Your task to perform on an android device: toggle notification dots Image 0: 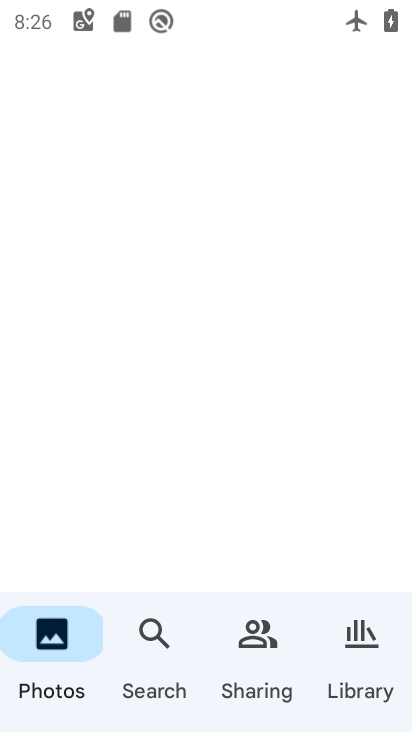
Step 0: drag from (226, 423) to (276, 12)
Your task to perform on an android device: toggle notification dots Image 1: 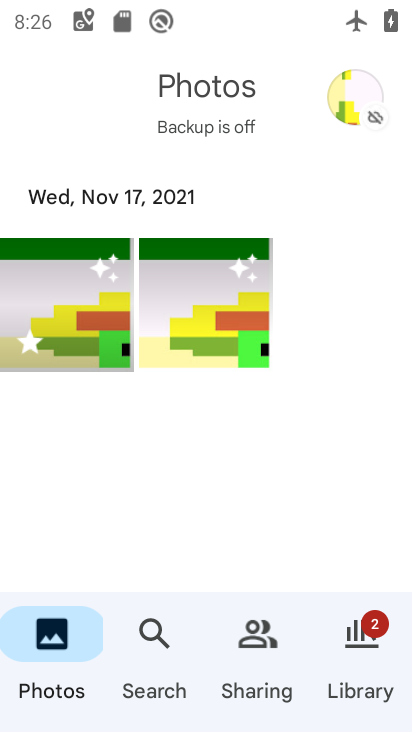
Step 1: press home button
Your task to perform on an android device: toggle notification dots Image 2: 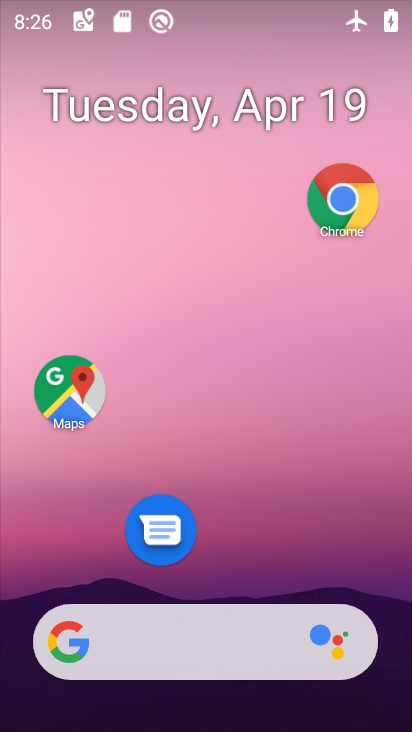
Step 2: drag from (224, 564) to (243, 10)
Your task to perform on an android device: toggle notification dots Image 3: 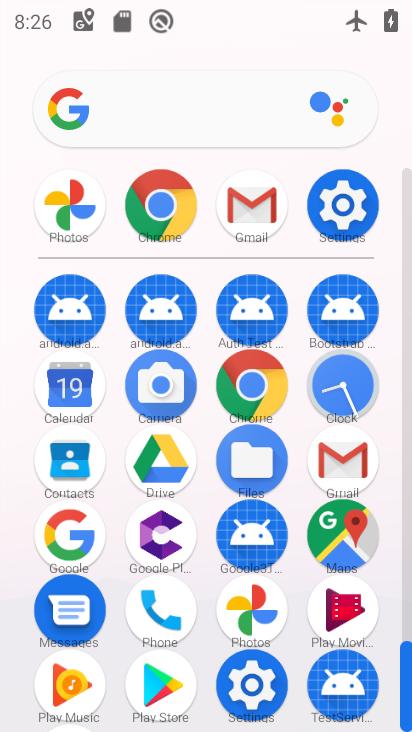
Step 3: click (253, 680)
Your task to perform on an android device: toggle notification dots Image 4: 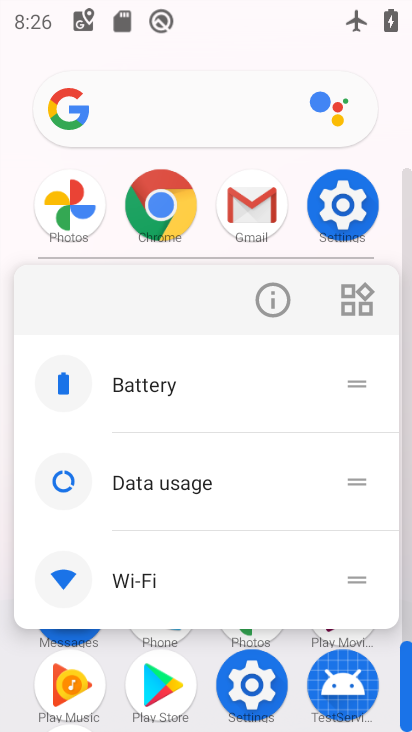
Step 4: click (276, 304)
Your task to perform on an android device: toggle notification dots Image 5: 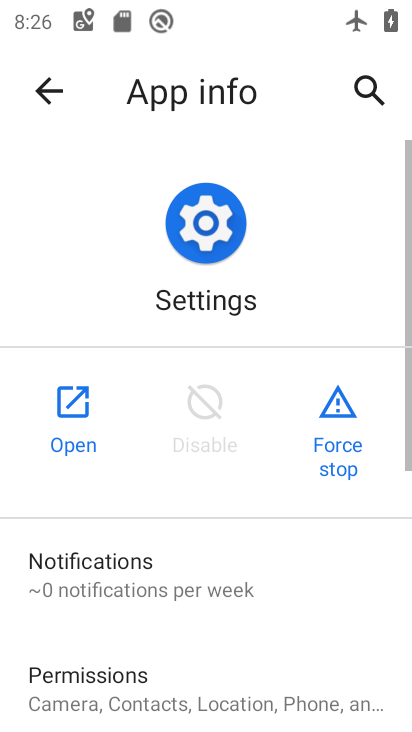
Step 5: click (63, 417)
Your task to perform on an android device: toggle notification dots Image 6: 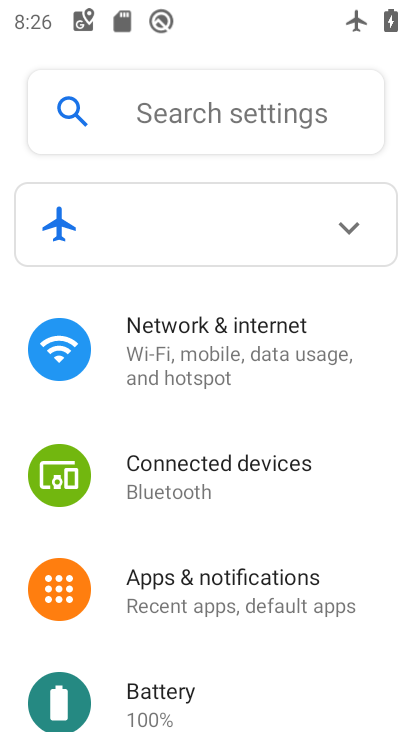
Step 6: drag from (195, 678) to (274, 10)
Your task to perform on an android device: toggle notification dots Image 7: 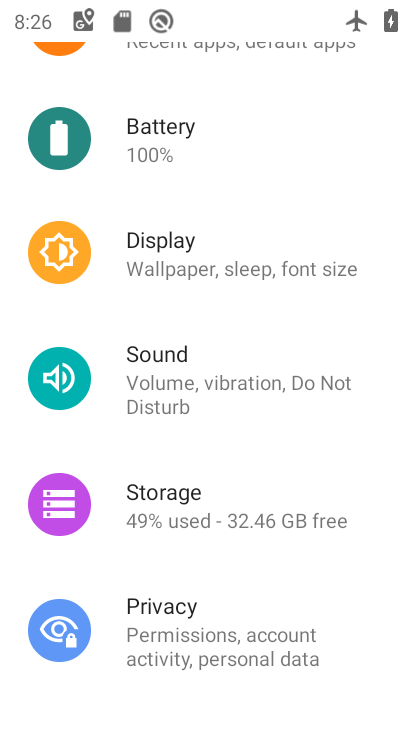
Step 7: drag from (232, 561) to (232, 139)
Your task to perform on an android device: toggle notification dots Image 8: 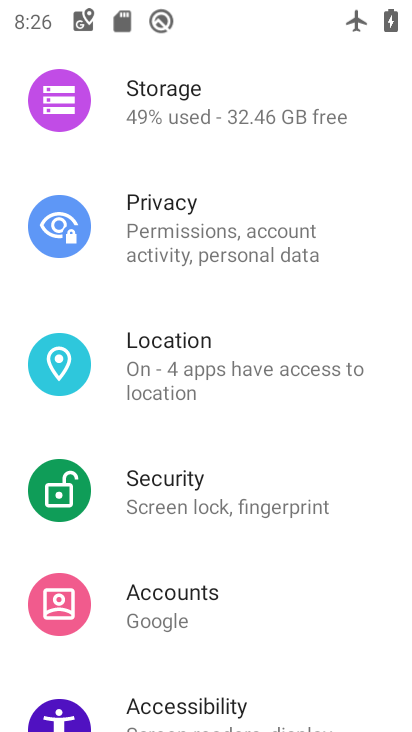
Step 8: drag from (202, 633) to (207, 120)
Your task to perform on an android device: toggle notification dots Image 9: 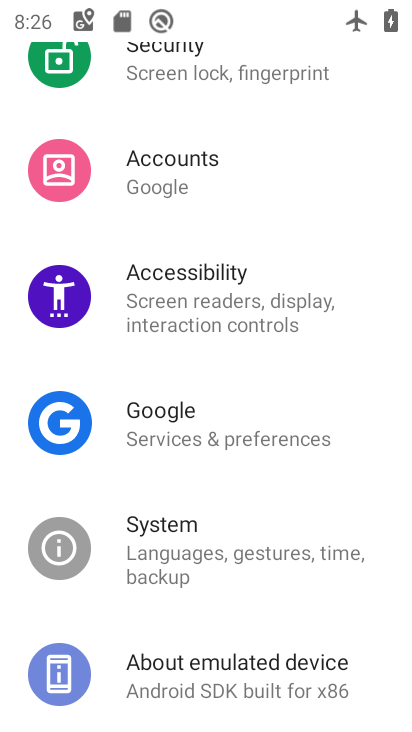
Step 9: drag from (248, 378) to (318, 674)
Your task to perform on an android device: toggle notification dots Image 10: 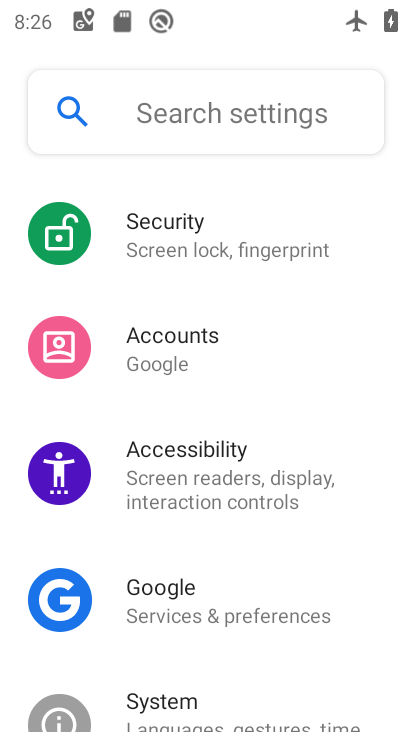
Step 10: drag from (211, 217) to (386, 646)
Your task to perform on an android device: toggle notification dots Image 11: 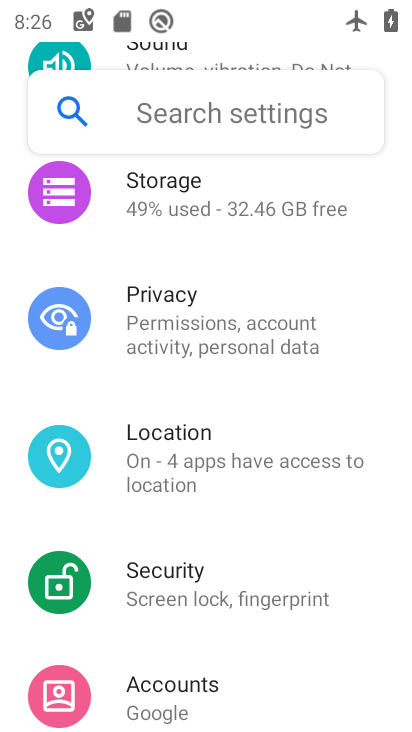
Step 11: drag from (263, 205) to (286, 627)
Your task to perform on an android device: toggle notification dots Image 12: 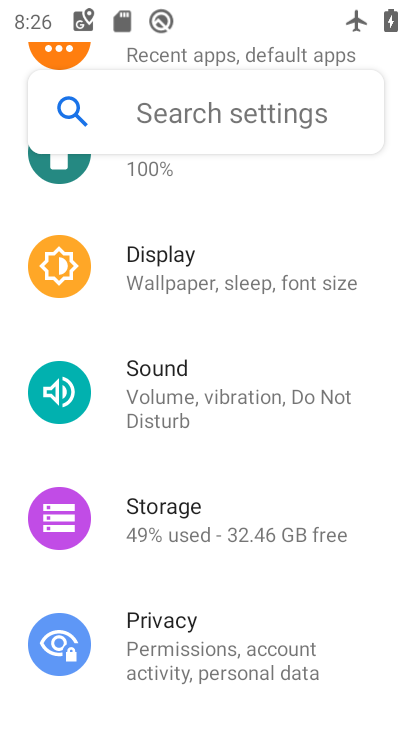
Step 12: drag from (166, 284) to (244, 676)
Your task to perform on an android device: toggle notification dots Image 13: 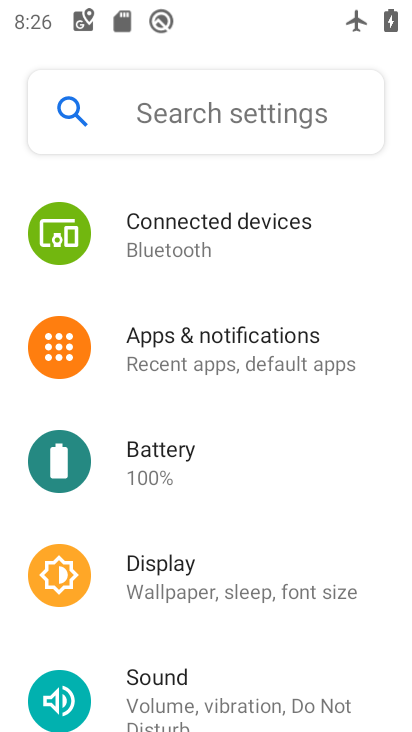
Step 13: click (177, 348)
Your task to perform on an android device: toggle notification dots Image 14: 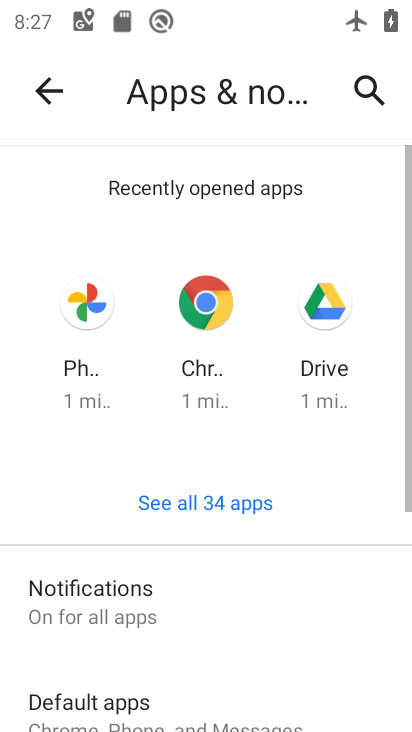
Step 14: drag from (202, 617) to (223, 230)
Your task to perform on an android device: toggle notification dots Image 15: 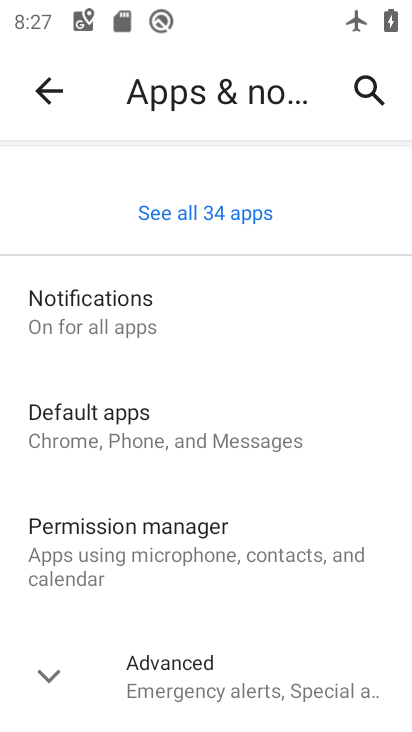
Step 15: click (142, 324)
Your task to perform on an android device: toggle notification dots Image 16: 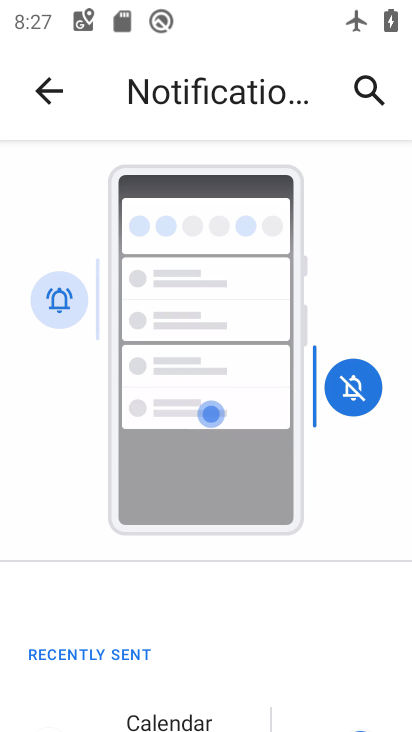
Step 16: drag from (276, 661) to (298, 190)
Your task to perform on an android device: toggle notification dots Image 17: 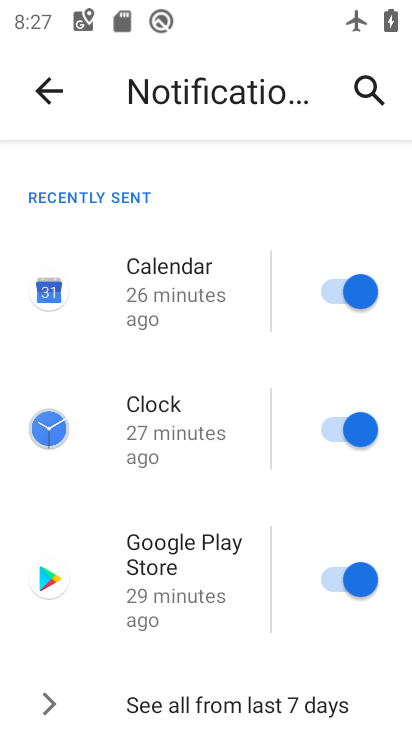
Step 17: drag from (240, 538) to (227, 177)
Your task to perform on an android device: toggle notification dots Image 18: 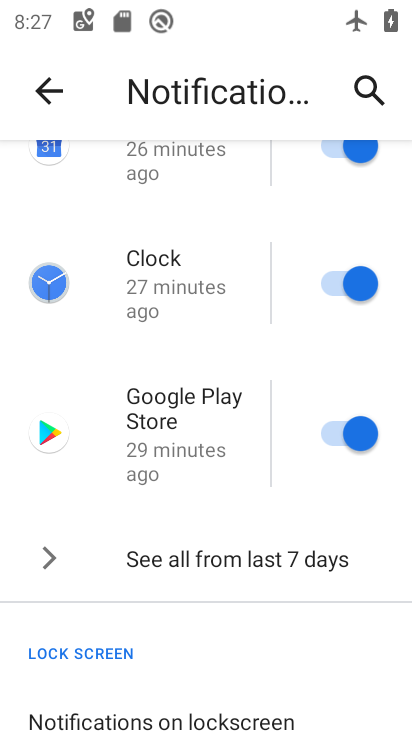
Step 18: drag from (197, 638) to (231, 226)
Your task to perform on an android device: toggle notification dots Image 19: 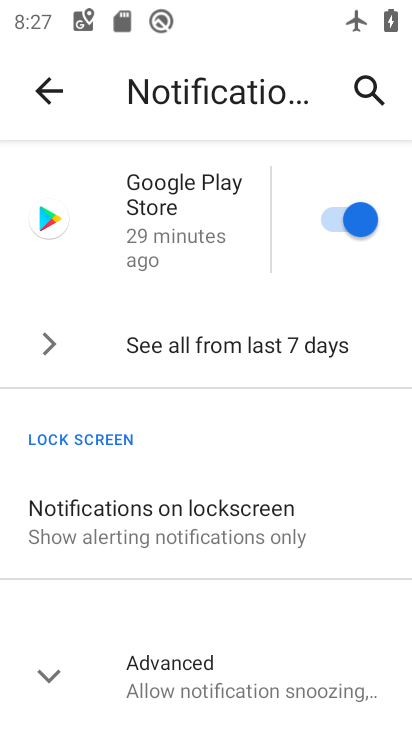
Step 19: click (228, 672)
Your task to perform on an android device: toggle notification dots Image 20: 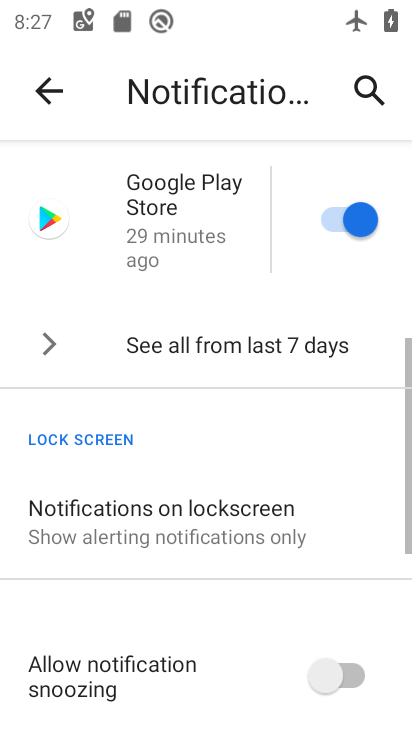
Step 20: drag from (226, 671) to (280, 63)
Your task to perform on an android device: toggle notification dots Image 21: 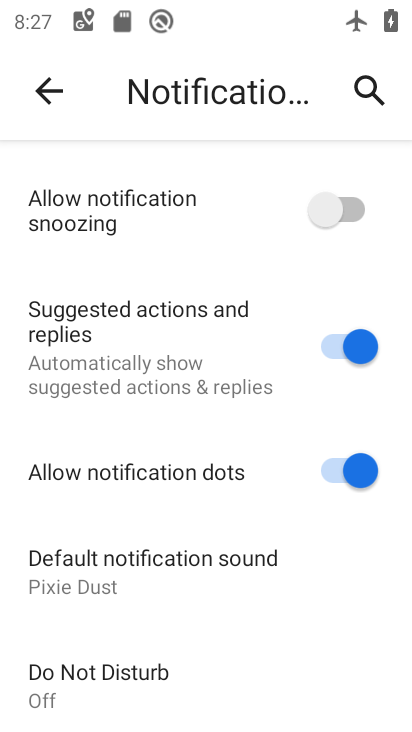
Step 21: click (342, 464)
Your task to perform on an android device: toggle notification dots Image 22: 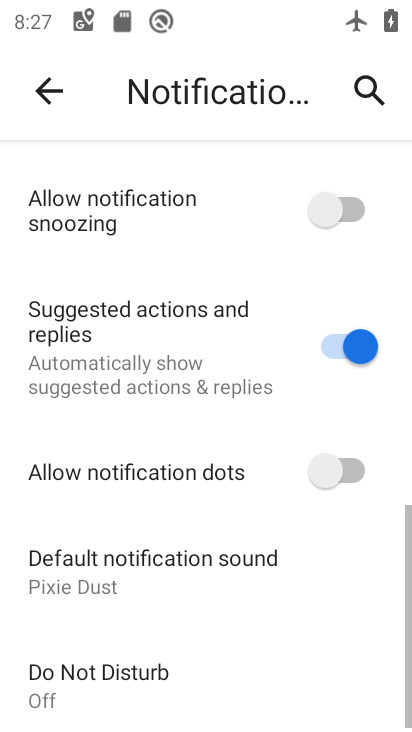
Step 22: task complete